Your task to perform on an android device: change alarm snooze length Image 0: 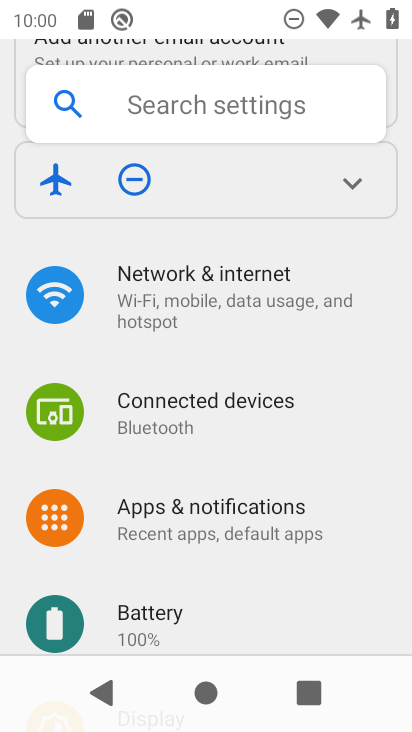
Step 0: press home button
Your task to perform on an android device: change alarm snooze length Image 1: 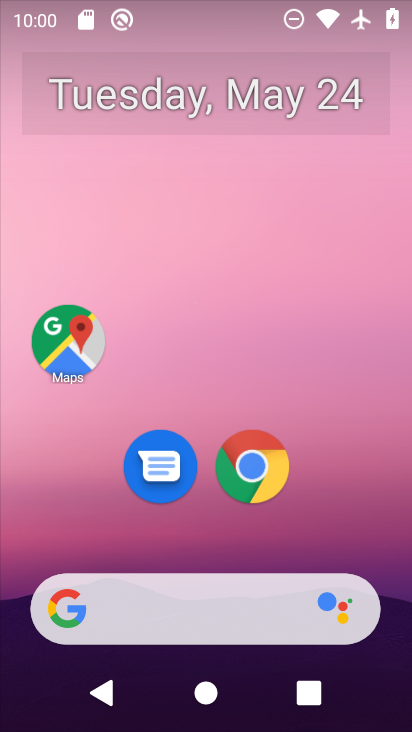
Step 1: drag from (200, 541) to (242, 9)
Your task to perform on an android device: change alarm snooze length Image 2: 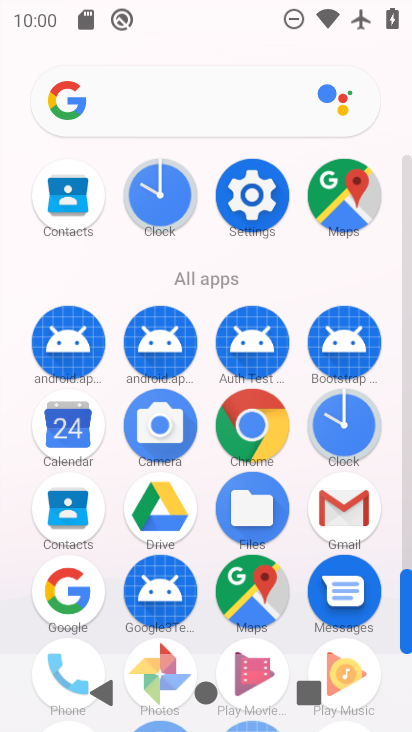
Step 2: click (345, 427)
Your task to perform on an android device: change alarm snooze length Image 3: 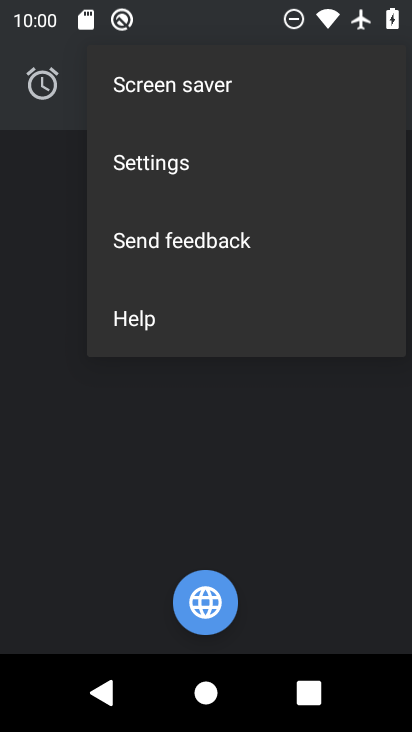
Step 3: click (213, 165)
Your task to perform on an android device: change alarm snooze length Image 4: 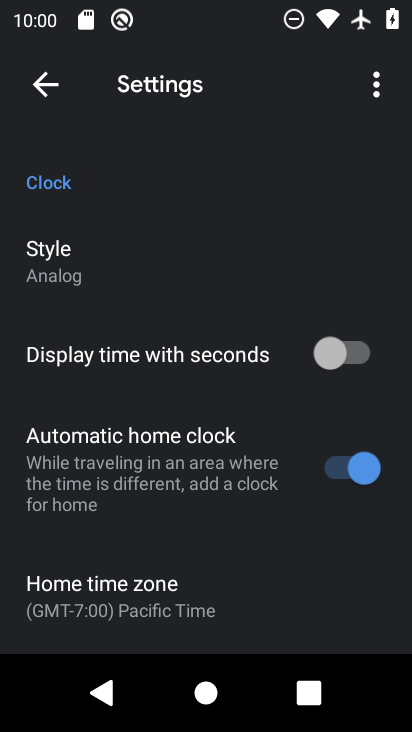
Step 4: drag from (181, 479) to (257, 86)
Your task to perform on an android device: change alarm snooze length Image 5: 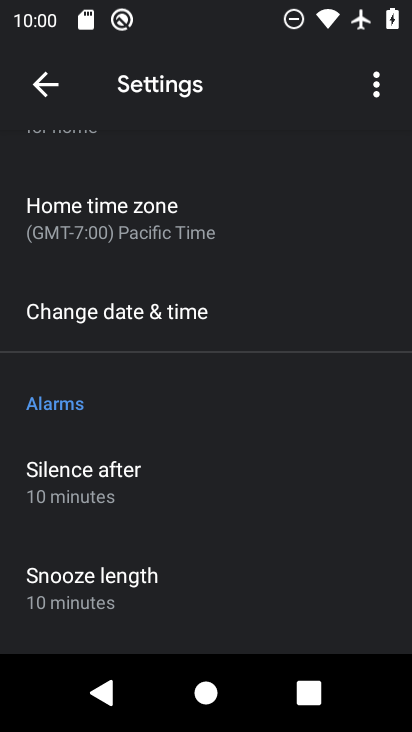
Step 5: click (150, 579)
Your task to perform on an android device: change alarm snooze length Image 6: 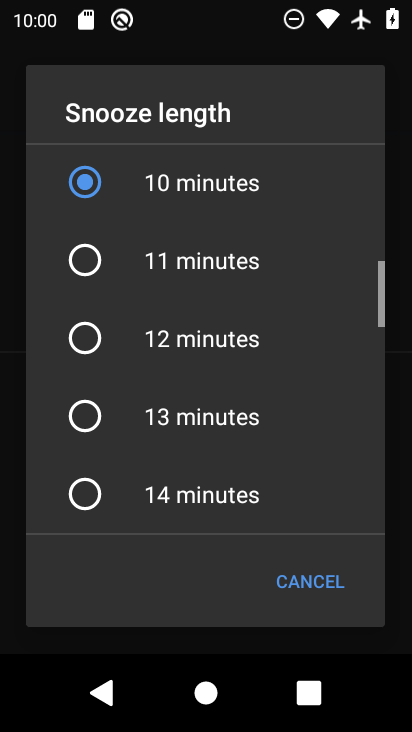
Step 6: click (103, 350)
Your task to perform on an android device: change alarm snooze length Image 7: 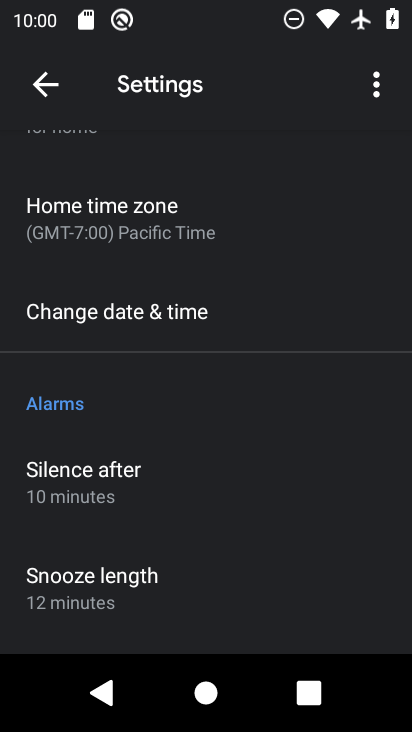
Step 7: task complete